Your task to perform on an android device: toggle location history Image 0: 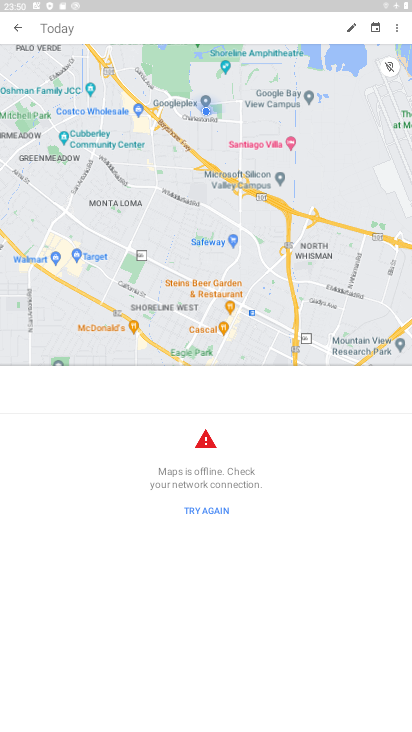
Step 0: press home button
Your task to perform on an android device: toggle location history Image 1: 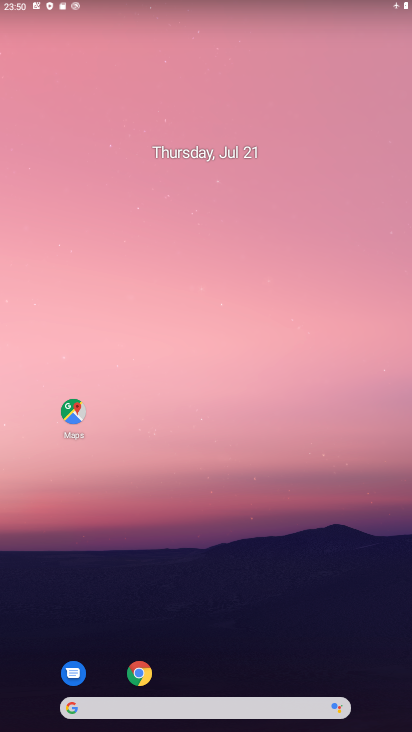
Step 1: drag from (220, 671) to (276, 257)
Your task to perform on an android device: toggle location history Image 2: 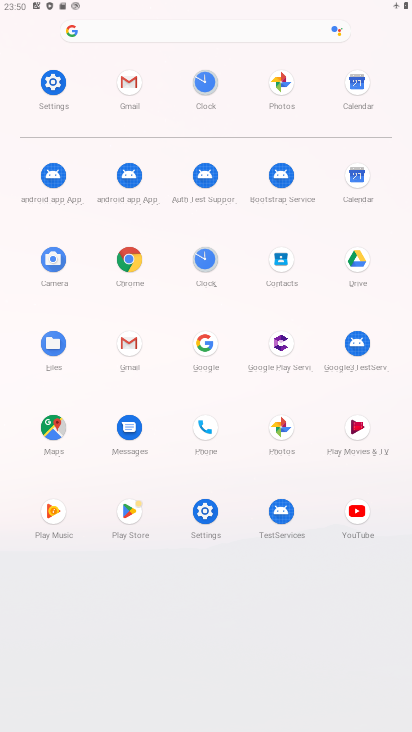
Step 2: click (59, 96)
Your task to perform on an android device: toggle location history Image 3: 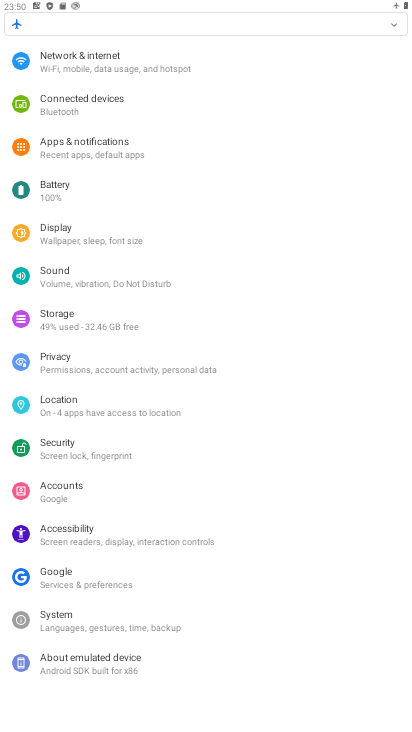
Step 3: click (137, 419)
Your task to perform on an android device: toggle location history Image 4: 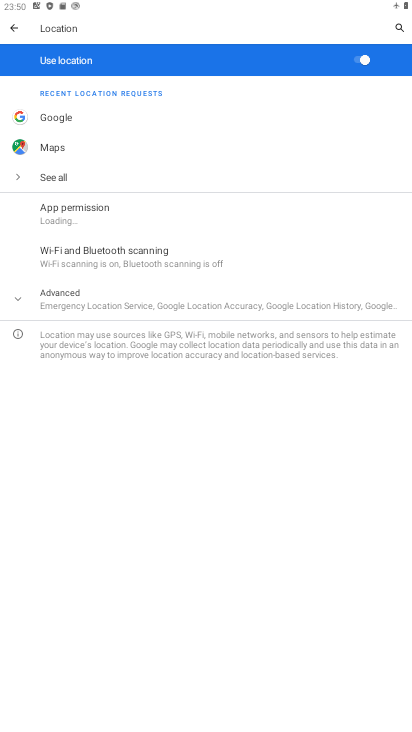
Step 4: click (135, 306)
Your task to perform on an android device: toggle location history Image 5: 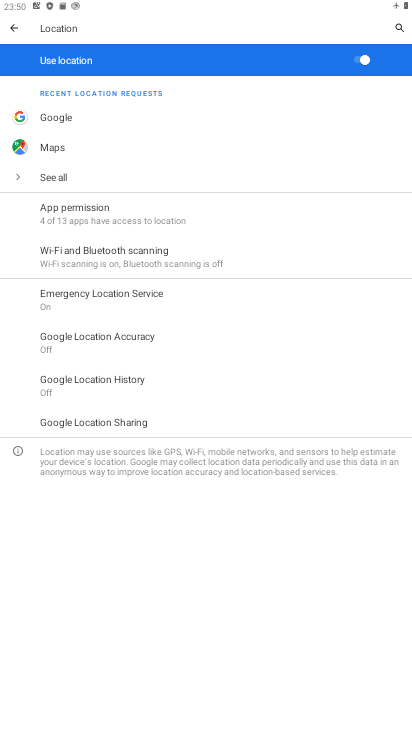
Step 5: click (128, 384)
Your task to perform on an android device: toggle location history Image 6: 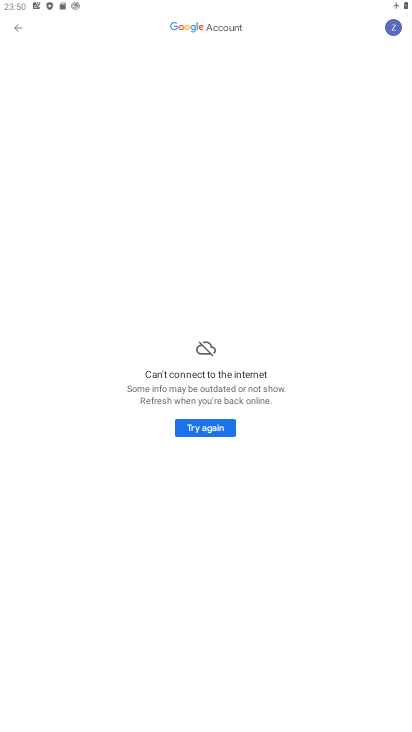
Step 6: task complete